Your task to perform on an android device: Open the calendar and show me this week's events? Image 0: 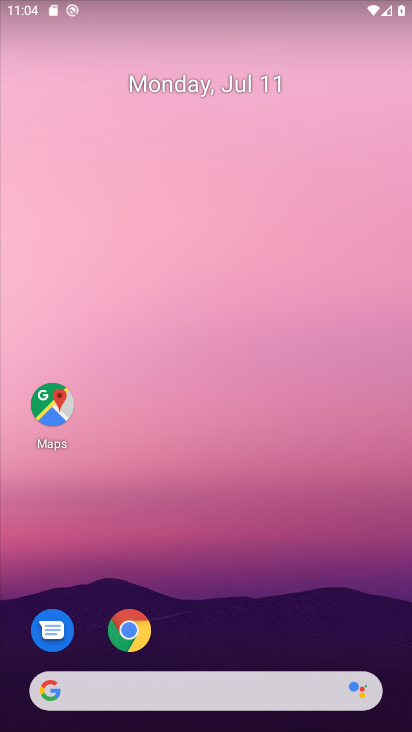
Step 0: drag from (177, 645) to (229, 41)
Your task to perform on an android device: Open the calendar and show me this week's events? Image 1: 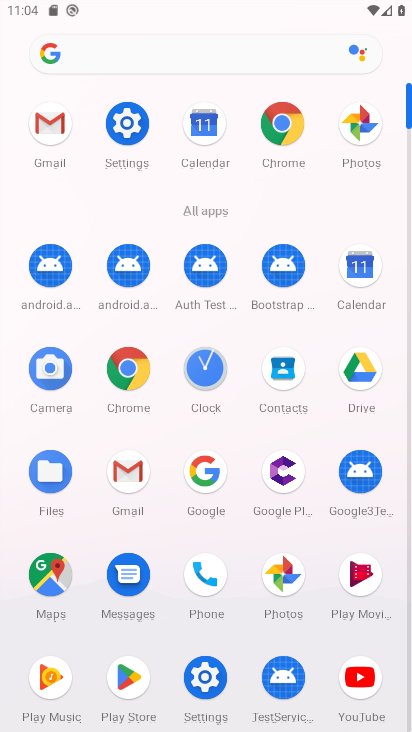
Step 1: click (365, 280)
Your task to perform on an android device: Open the calendar and show me this week's events? Image 2: 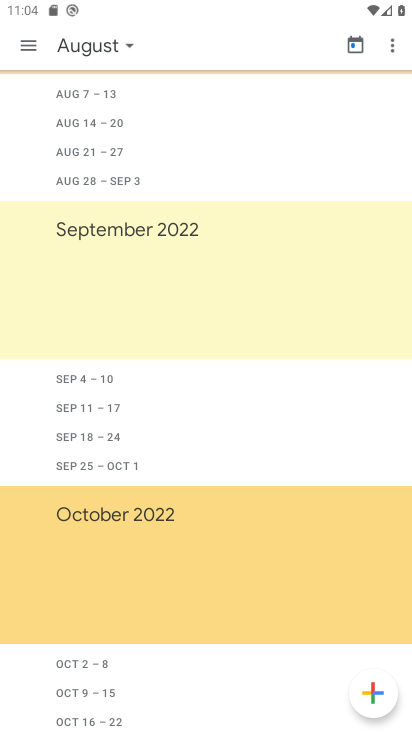
Step 2: click (20, 44)
Your task to perform on an android device: Open the calendar and show me this week's events? Image 3: 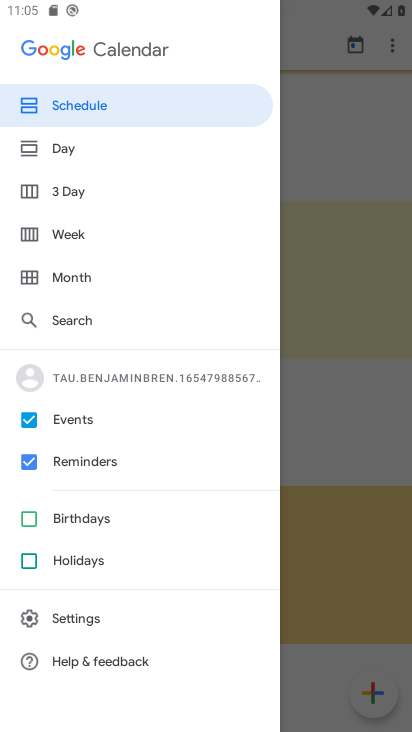
Step 3: click (110, 468)
Your task to perform on an android device: Open the calendar and show me this week's events? Image 4: 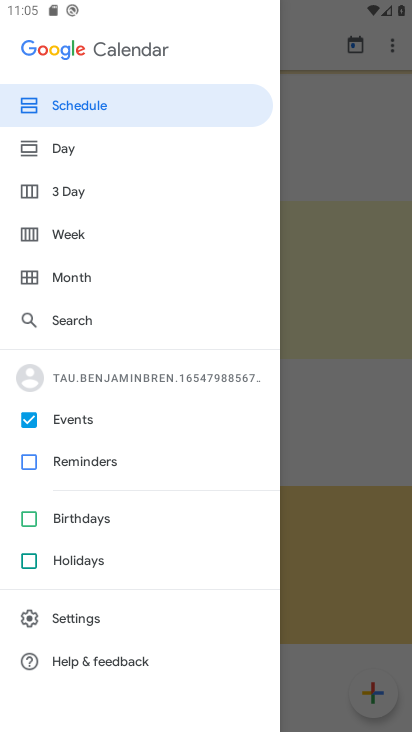
Step 4: click (68, 235)
Your task to perform on an android device: Open the calendar and show me this week's events? Image 5: 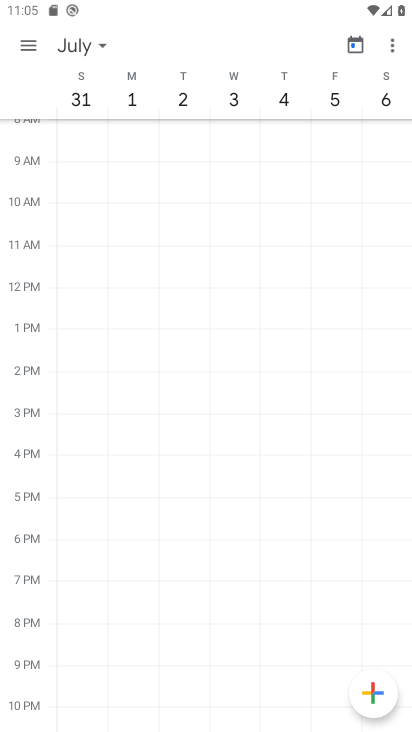
Step 5: task complete